Your task to perform on an android device: Open my contact list Image 0: 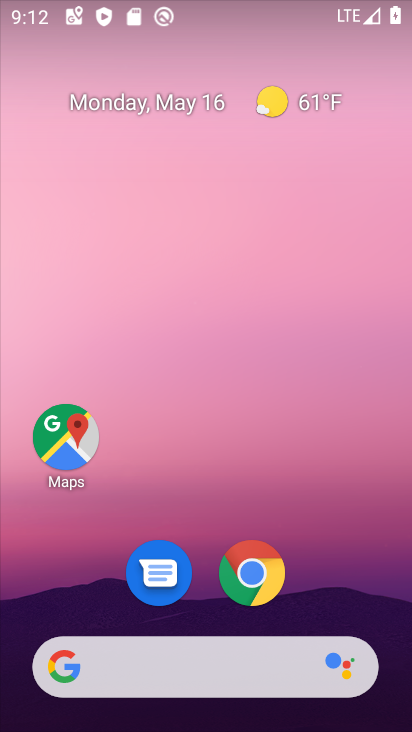
Step 0: drag from (203, 725) to (203, 94)
Your task to perform on an android device: Open my contact list Image 1: 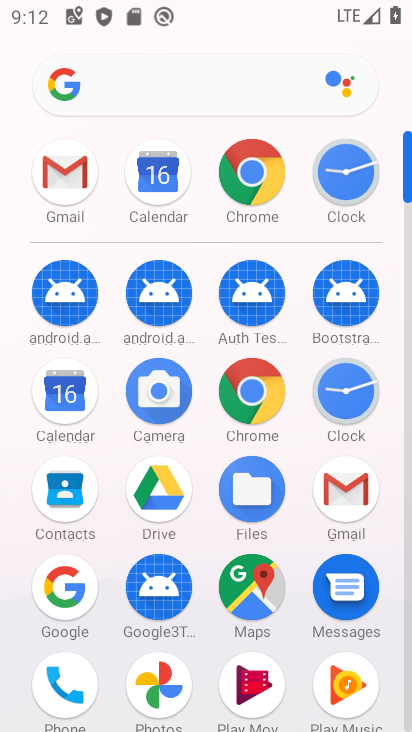
Step 1: click (62, 484)
Your task to perform on an android device: Open my contact list Image 2: 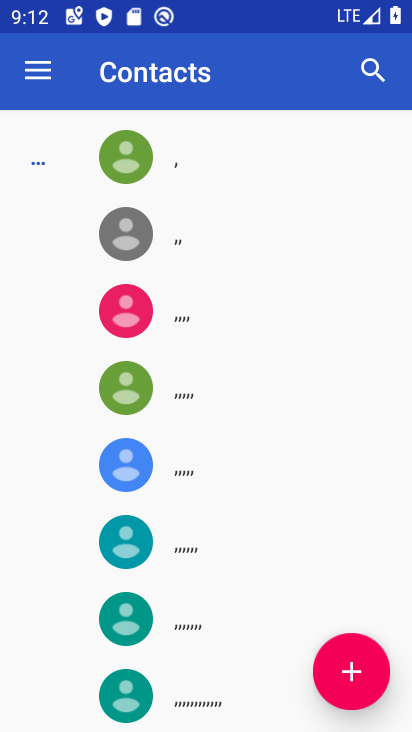
Step 2: task complete